Your task to perform on an android device: What's the news in Trinidad and Tobago? Image 0: 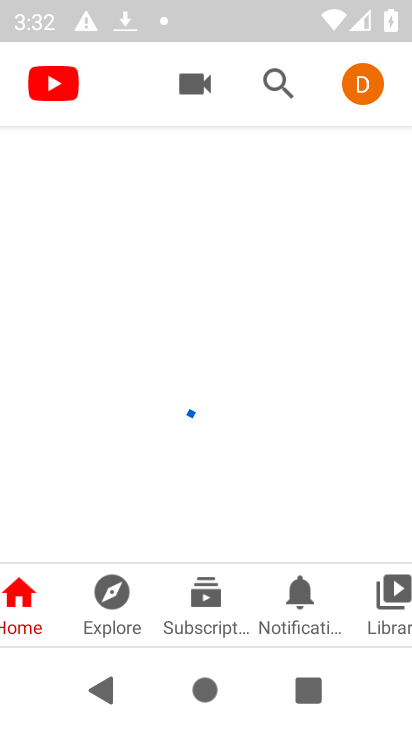
Step 0: press home button
Your task to perform on an android device: What's the news in Trinidad and Tobago? Image 1: 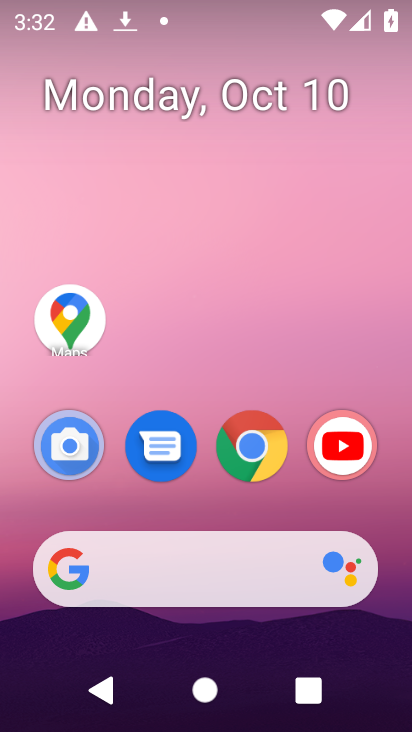
Step 1: click (209, 580)
Your task to perform on an android device: What's the news in Trinidad and Tobago? Image 2: 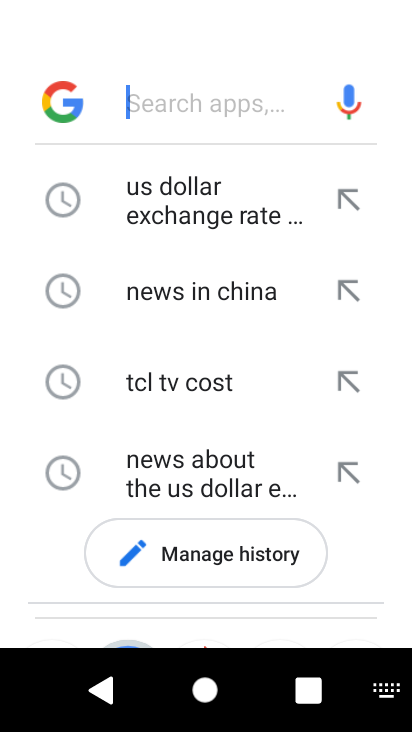
Step 2: type "rinidad and Tobago"
Your task to perform on an android device: What's the news in Trinidad and Tobago? Image 3: 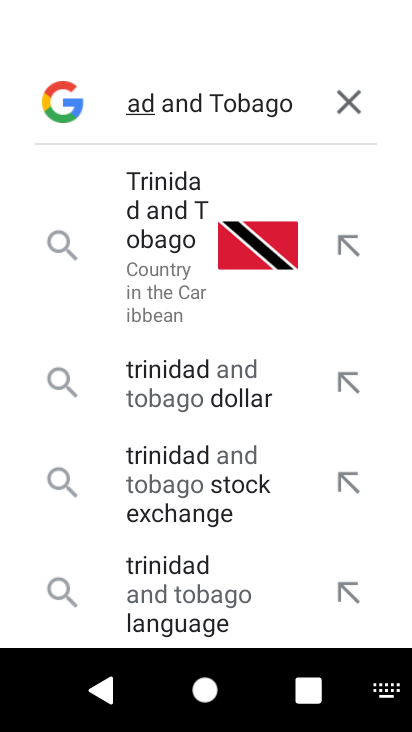
Step 3: click (159, 218)
Your task to perform on an android device: What's the news in Trinidad and Tobago? Image 4: 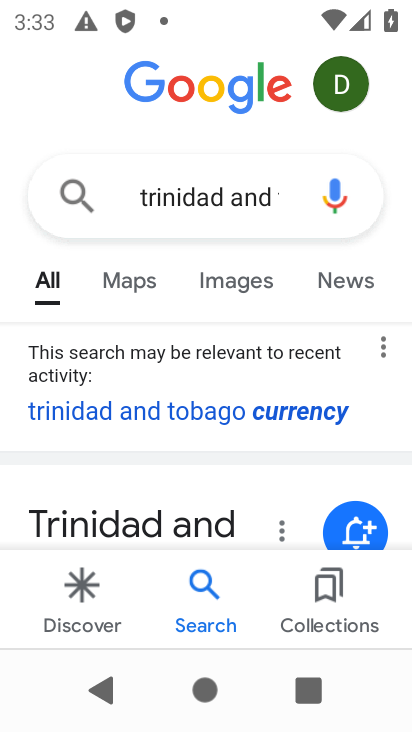
Step 4: click (319, 271)
Your task to perform on an android device: What's the news in Trinidad and Tobago? Image 5: 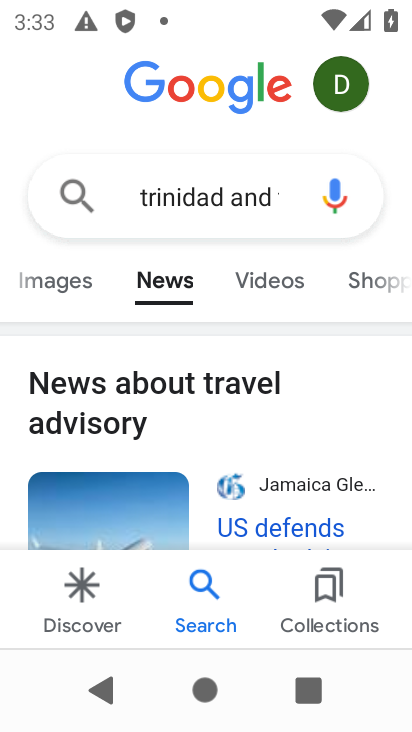
Step 5: task complete